Your task to perform on an android device: check out phone information Image 0: 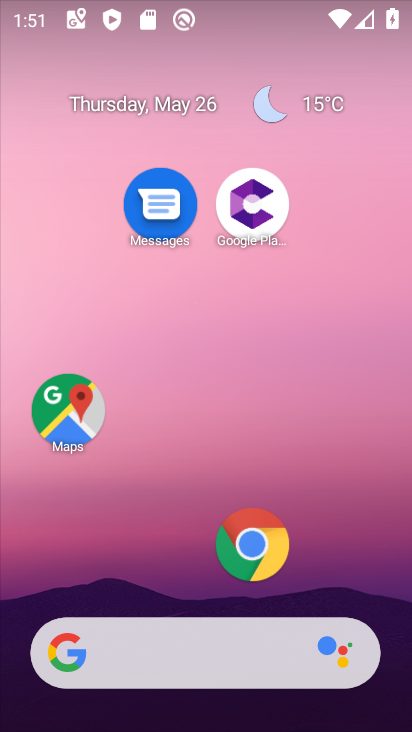
Step 0: drag from (142, 617) to (133, 144)
Your task to perform on an android device: check out phone information Image 1: 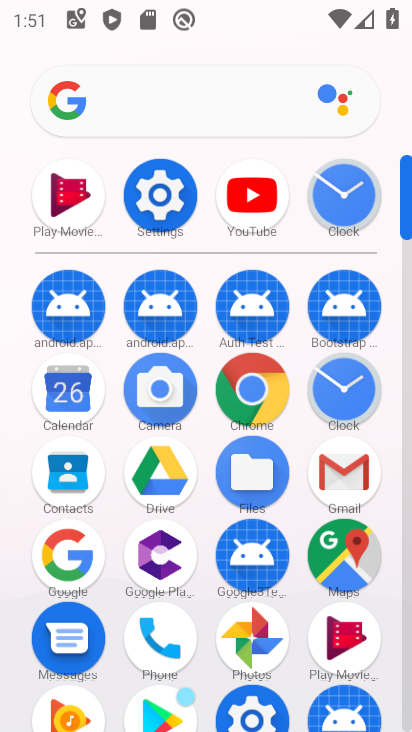
Step 1: click (177, 207)
Your task to perform on an android device: check out phone information Image 2: 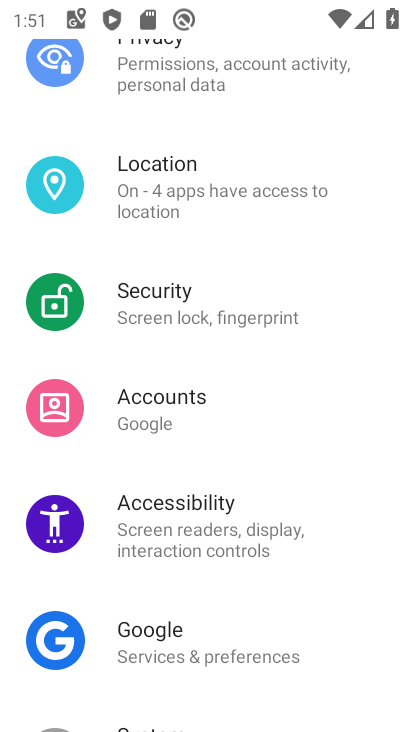
Step 2: drag from (158, 622) to (237, 183)
Your task to perform on an android device: check out phone information Image 3: 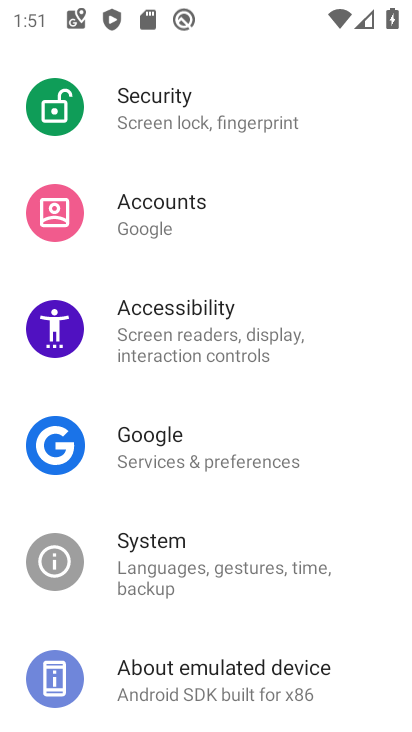
Step 3: click (243, 683)
Your task to perform on an android device: check out phone information Image 4: 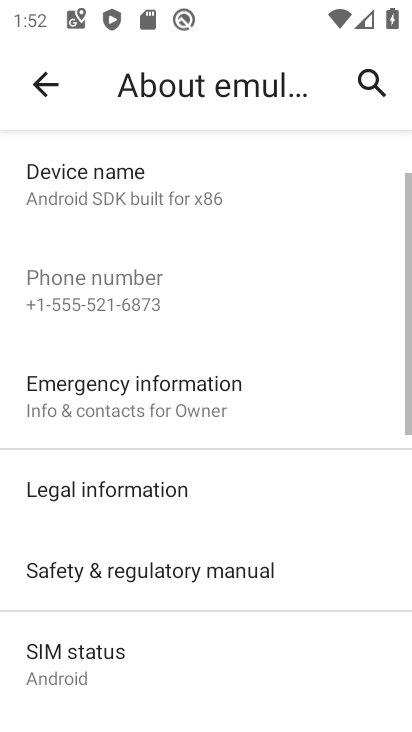
Step 4: task complete